Your task to perform on an android device: change the clock display to show seconds Image 0: 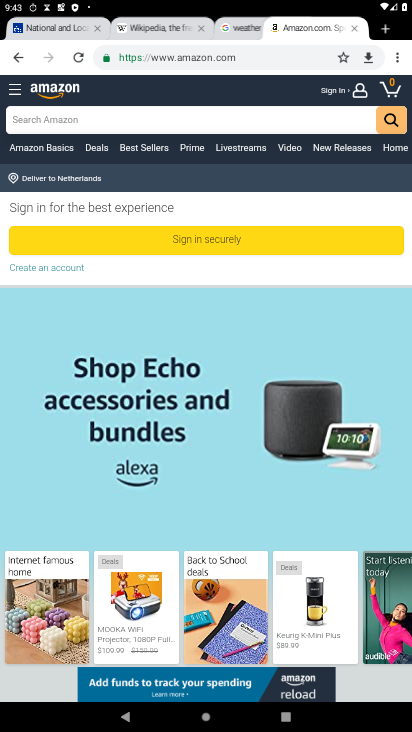
Step 0: press home button
Your task to perform on an android device: change the clock display to show seconds Image 1: 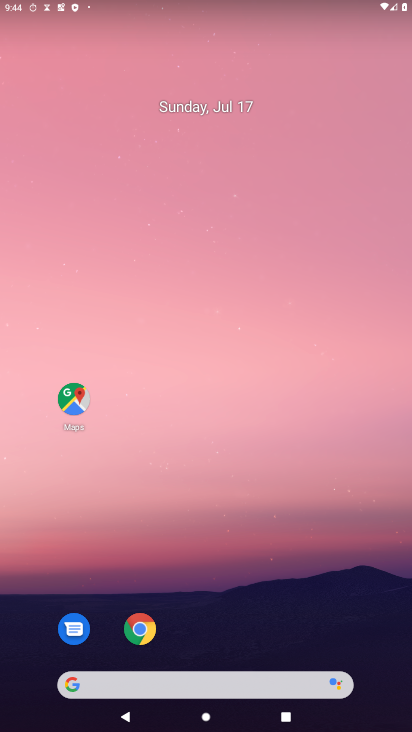
Step 1: drag from (222, 727) to (255, 65)
Your task to perform on an android device: change the clock display to show seconds Image 2: 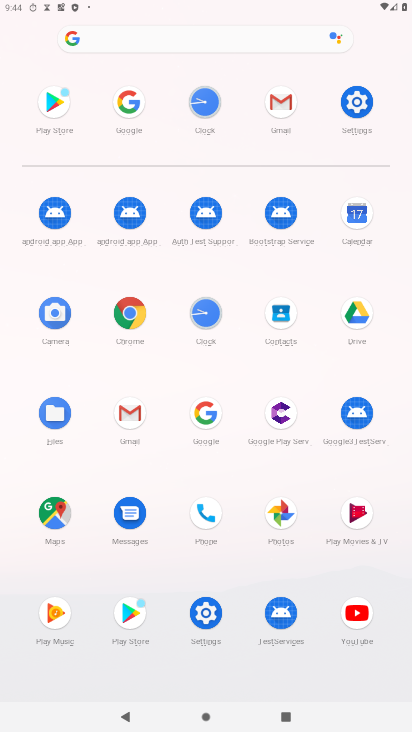
Step 2: click (205, 311)
Your task to perform on an android device: change the clock display to show seconds Image 3: 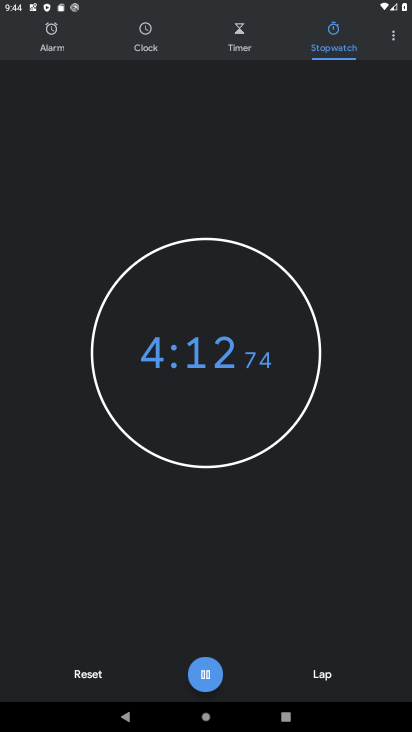
Step 3: click (394, 43)
Your task to perform on an android device: change the clock display to show seconds Image 4: 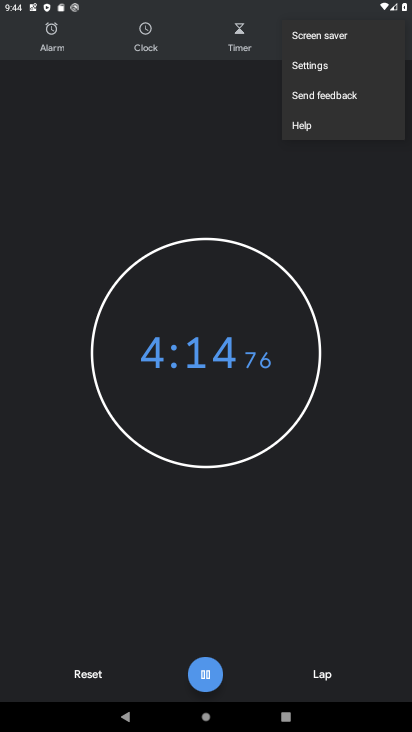
Step 4: click (313, 67)
Your task to perform on an android device: change the clock display to show seconds Image 5: 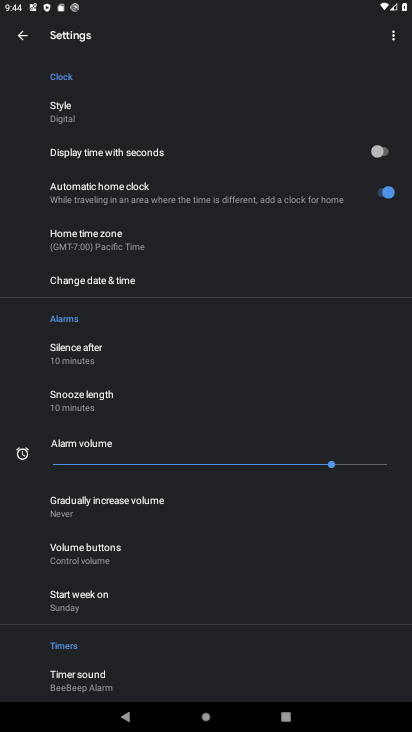
Step 5: click (383, 151)
Your task to perform on an android device: change the clock display to show seconds Image 6: 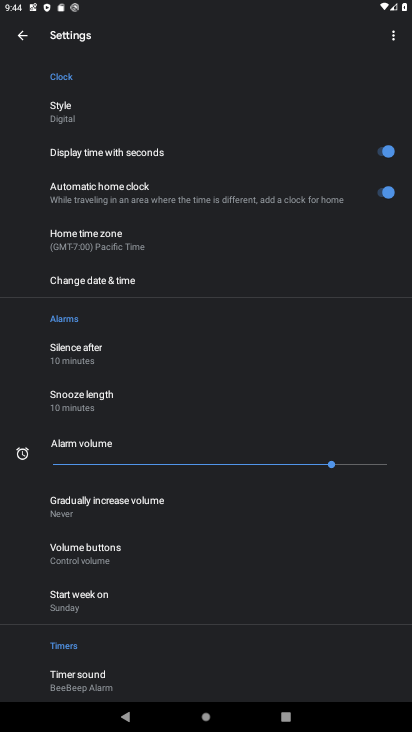
Step 6: task complete